Your task to perform on an android device: Open maps Image 0: 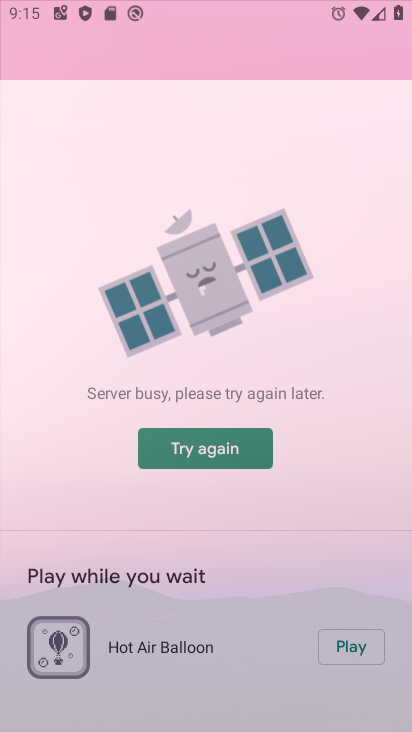
Step 0: drag from (368, 448) to (345, 281)
Your task to perform on an android device: Open maps Image 1: 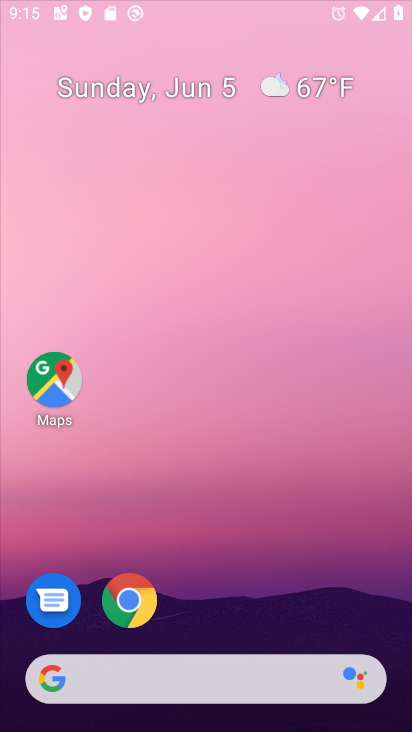
Step 1: drag from (308, 125) to (287, 76)
Your task to perform on an android device: Open maps Image 2: 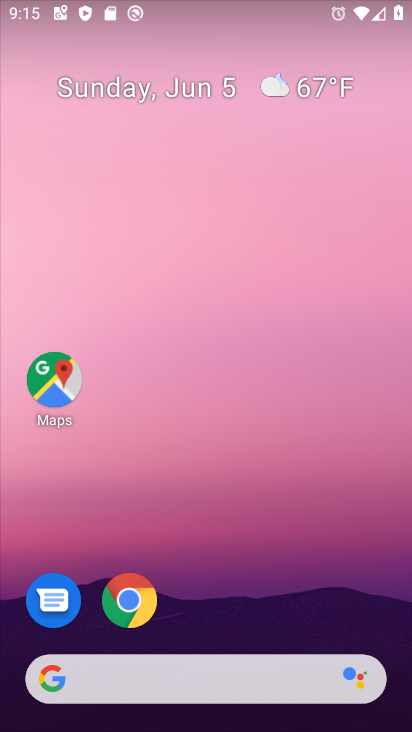
Step 2: drag from (390, 620) to (319, 112)
Your task to perform on an android device: Open maps Image 3: 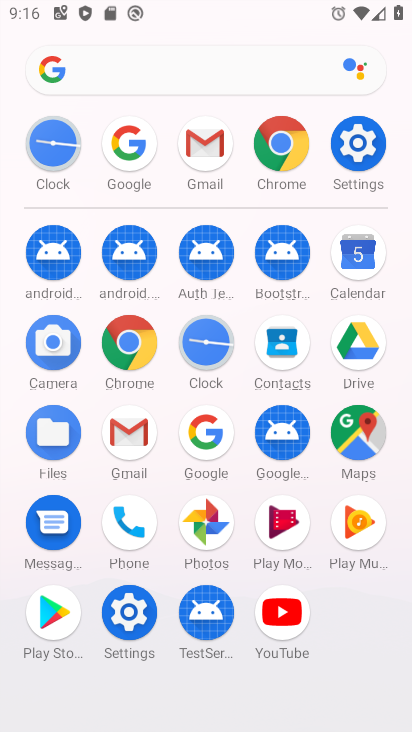
Step 3: click (355, 442)
Your task to perform on an android device: Open maps Image 4: 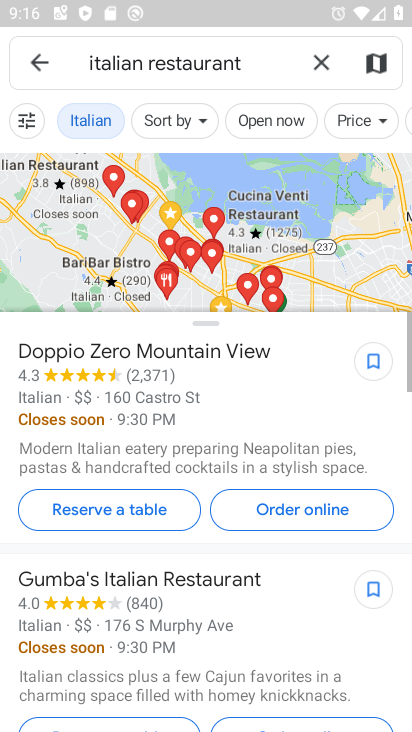
Step 4: click (327, 63)
Your task to perform on an android device: Open maps Image 5: 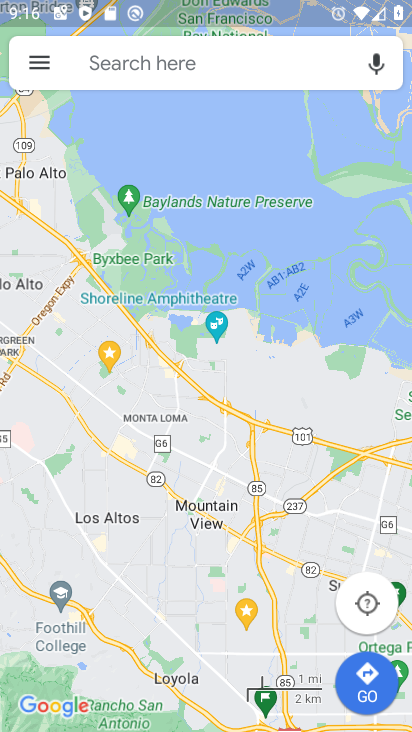
Step 5: task complete